Your task to perform on an android device: Open Chrome and go to the settings page Image 0: 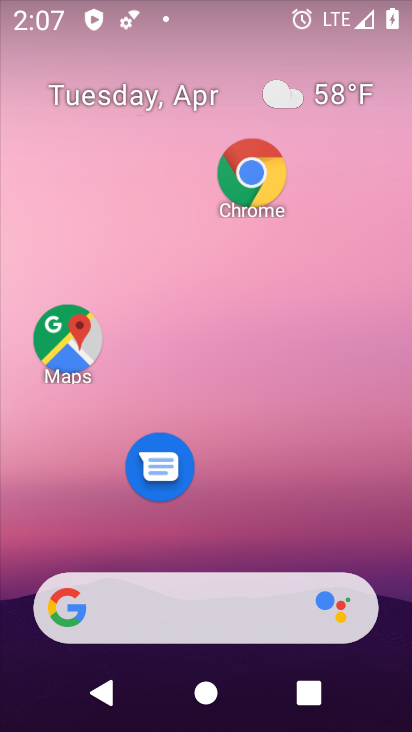
Step 0: drag from (281, 488) to (325, 21)
Your task to perform on an android device: Open Chrome and go to the settings page Image 1: 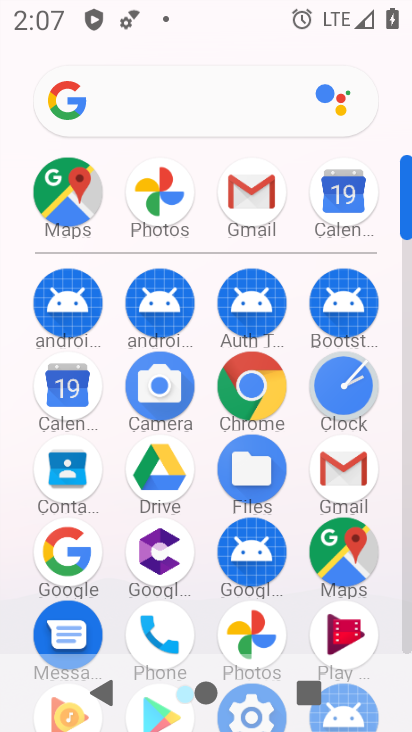
Step 1: click (259, 380)
Your task to perform on an android device: Open Chrome and go to the settings page Image 2: 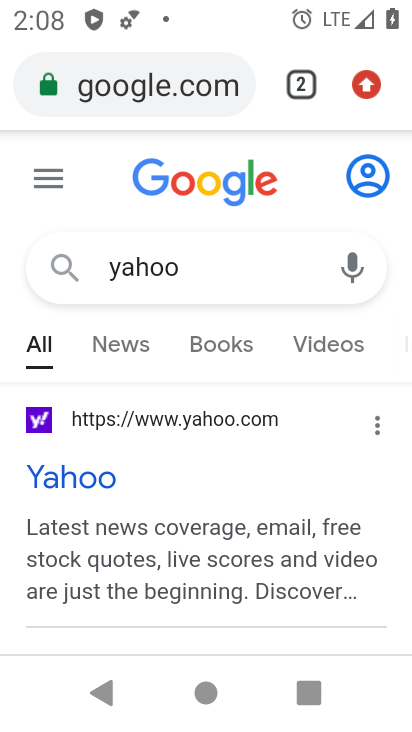
Step 2: click (360, 84)
Your task to perform on an android device: Open Chrome and go to the settings page Image 3: 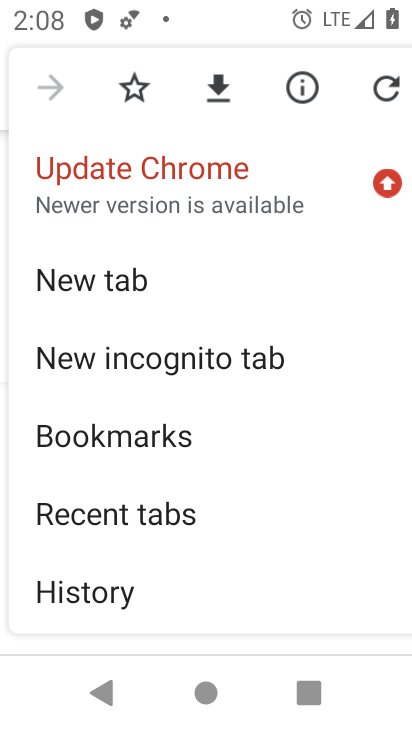
Step 3: drag from (212, 528) to (240, 168)
Your task to perform on an android device: Open Chrome and go to the settings page Image 4: 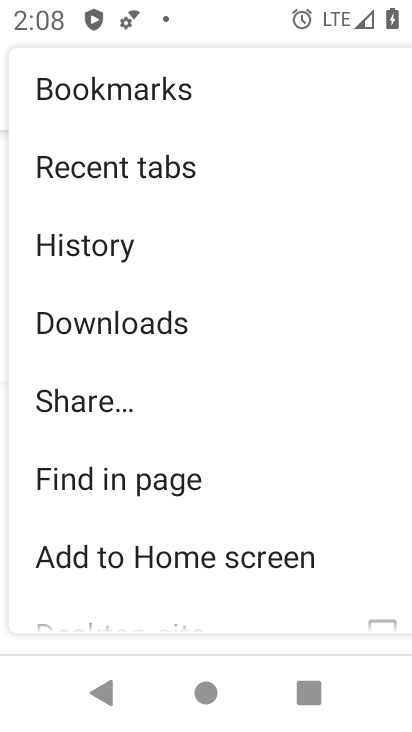
Step 4: drag from (126, 571) to (162, 263)
Your task to perform on an android device: Open Chrome and go to the settings page Image 5: 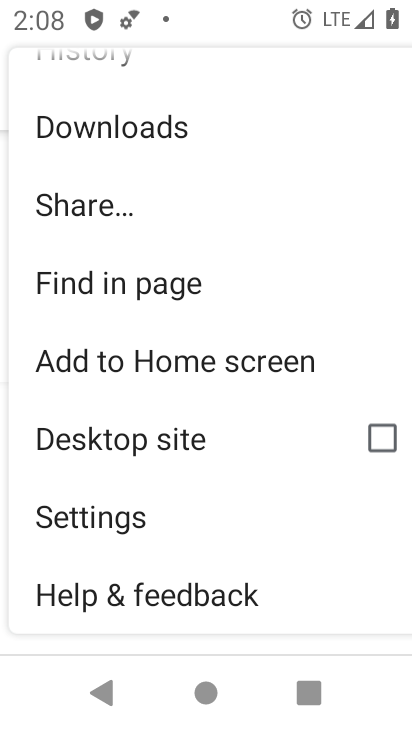
Step 5: click (143, 517)
Your task to perform on an android device: Open Chrome and go to the settings page Image 6: 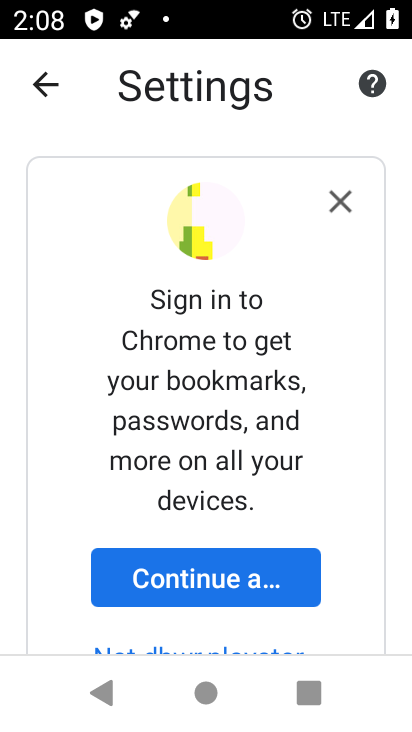
Step 6: task complete